Your task to perform on an android device: Search for vegetarian restaurants on Maps Image 0: 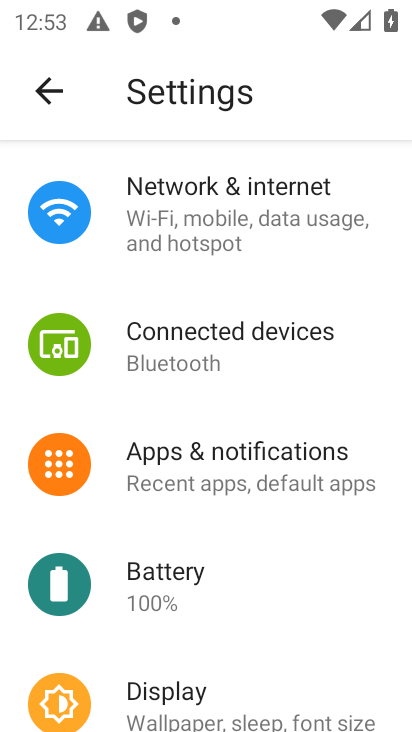
Step 0: press home button
Your task to perform on an android device: Search for vegetarian restaurants on Maps Image 1: 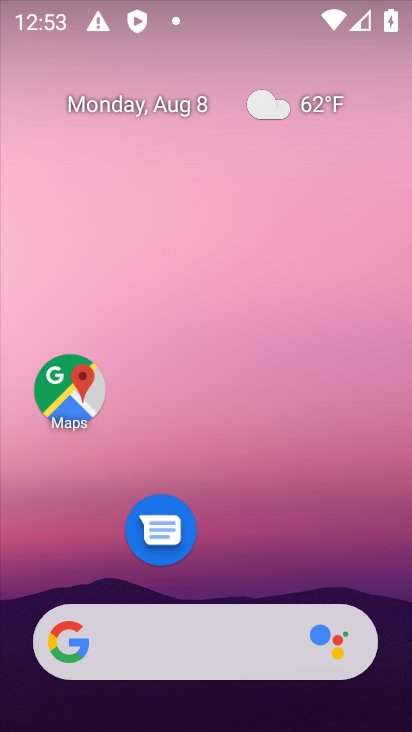
Step 1: drag from (239, 586) to (233, 41)
Your task to perform on an android device: Search for vegetarian restaurants on Maps Image 2: 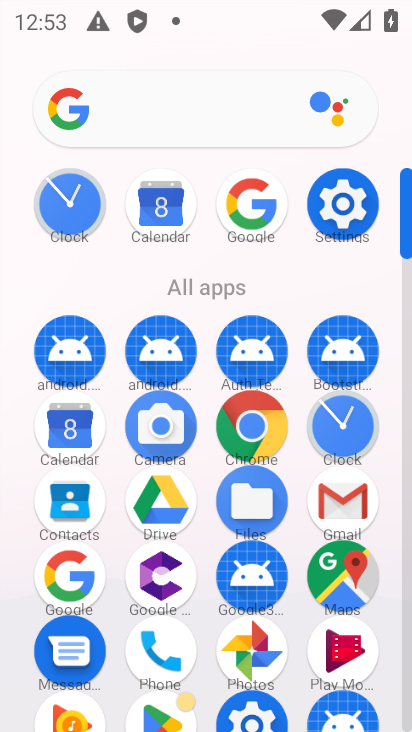
Step 2: click (337, 570)
Your task to perform on an android device: Search for vegetarian restaurants on Maps Image 3: 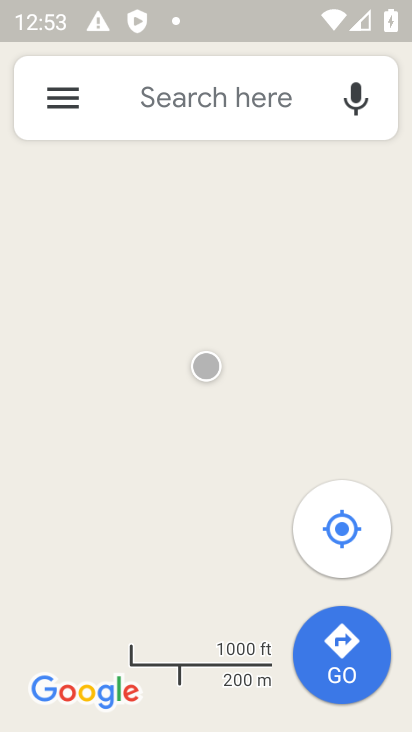
Step 3: click (233, 111)
Your task to perform on an android device: Search for vegetarian restaurants on Maps Image 4: 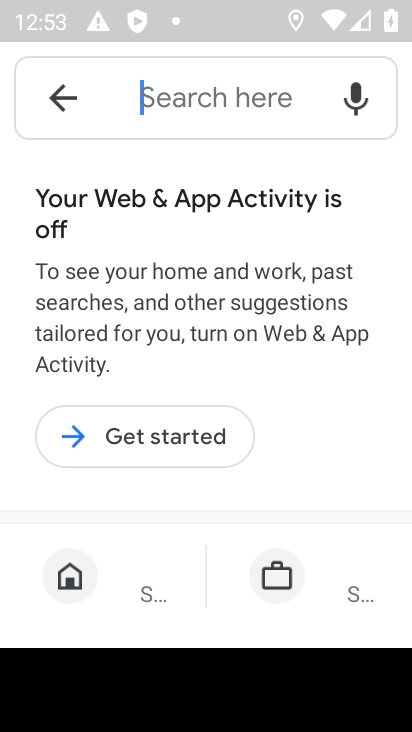
Step 4: type "vegetarian restaurants"
Your task to perform on an android device: Search for vegetarian restaurants on Maps Image 5: 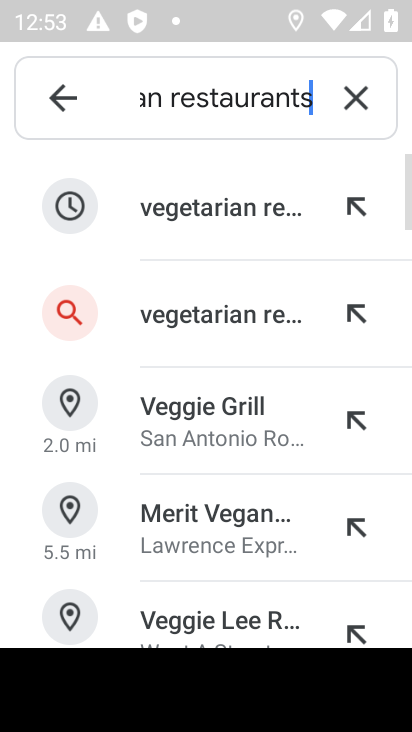
Step 5: click (188, 210)
Your task to perform on an android device: Search for vegetarian restaurants on Maps Image 6: 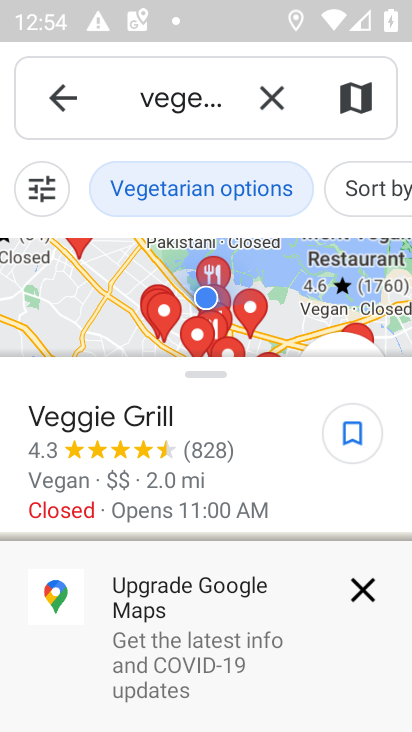
Step 6: task complete